Your task to perform on an android device: Open my contact list Image 0: 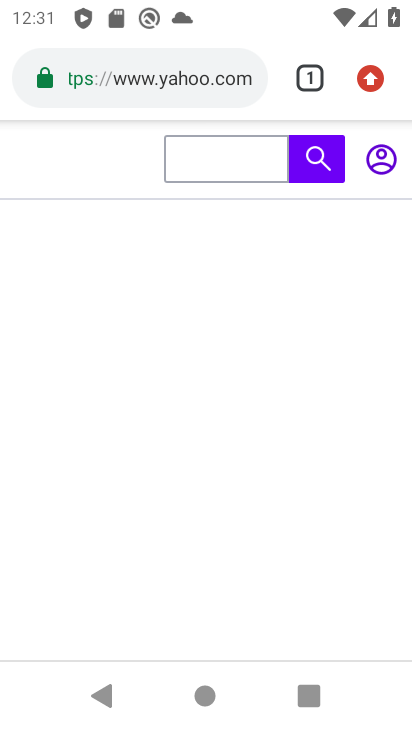
Step 0: press home button
Your task to perform on an android device: Open my contact list Image 1: 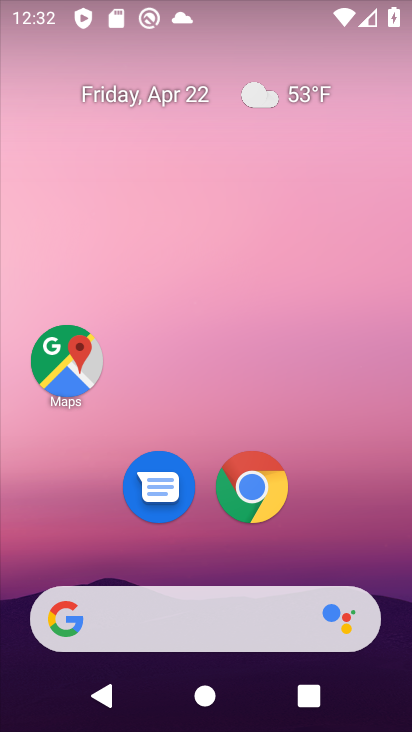
Step 1: drag from (203, 529) to (240, 63)
Your task to perform on an android device: Open my contact list Image 2: 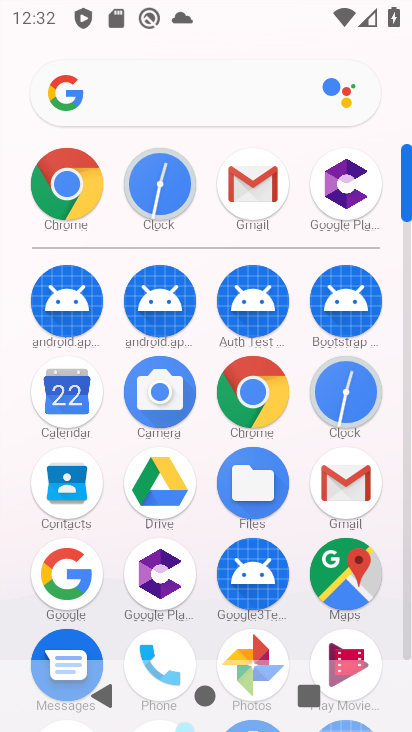
Step 2: click (63, 491)
Your task to perform on an android device: Open my contact list Image 3: 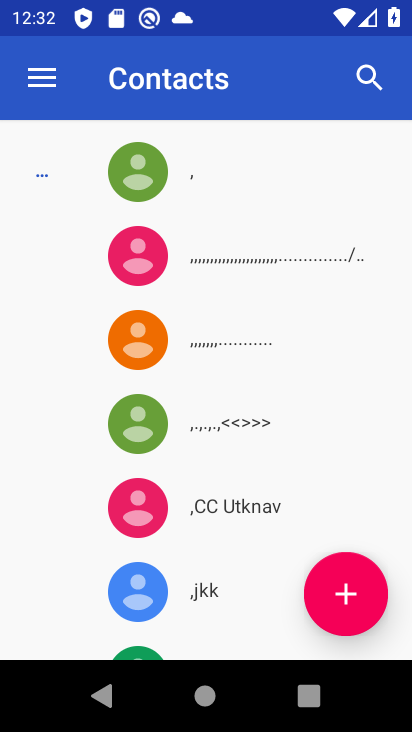
Step 3: task complete